Your task to perform on an android device: open a bookmark in the chrome app Image 0: 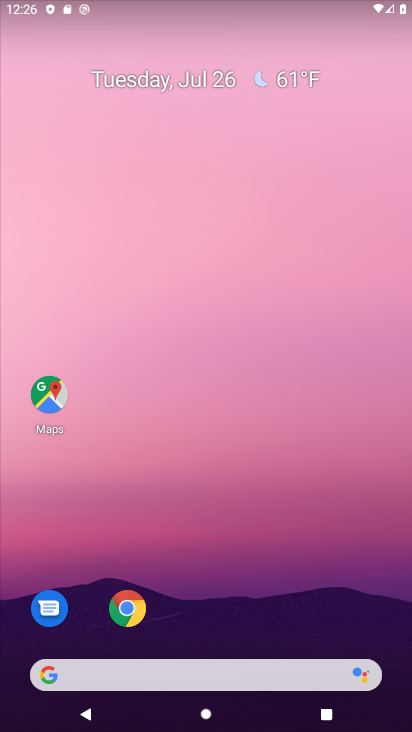
Step 0: drag from (349, 610) to (361, 112)
Your task to perform on an android device: open a bookmark in the chrome app Image 1: 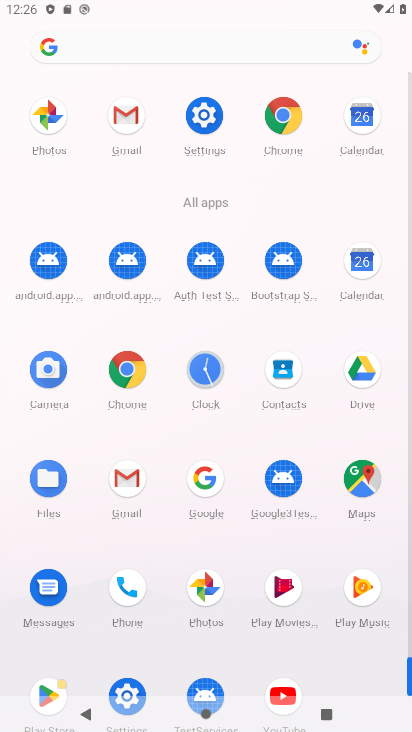
Step 1: click (282, 116)
Your task to perform on an android device: open a bookmark in the chrome app Image 2: 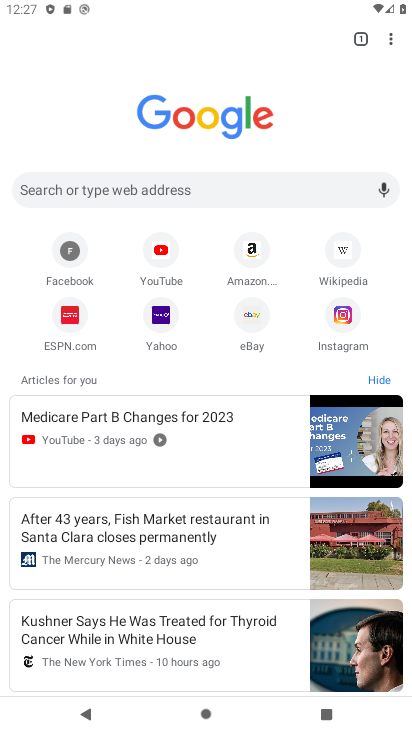
Step 2: click (391, 40)
Your task to perform on an android device: open a bookmark in the chrome app Image 3: 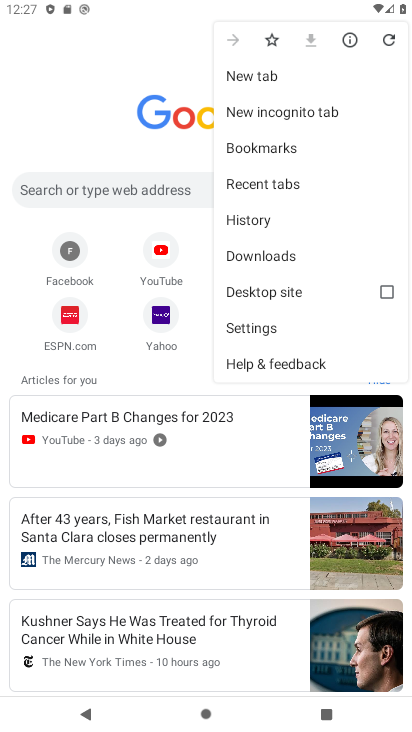
Step 3: click (294, 149)
Your task to perform on an android device: open a bookmark in the chrome app Image 4: 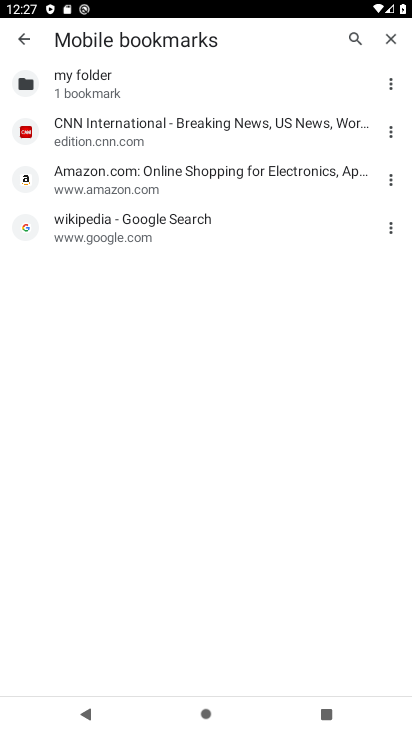
Step 4: click (201, 168)
Your task to perform on an android device: open a bookmark in the chrome app Image 5: 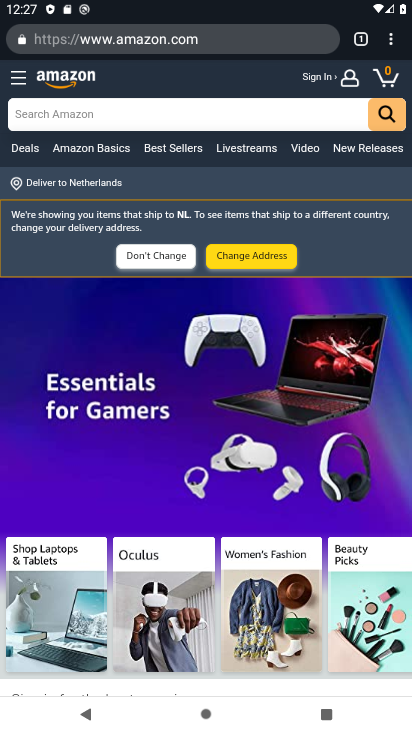
Step 5: task complete